Your task to perform on an android device: empty trash in the gmail app Image 0: 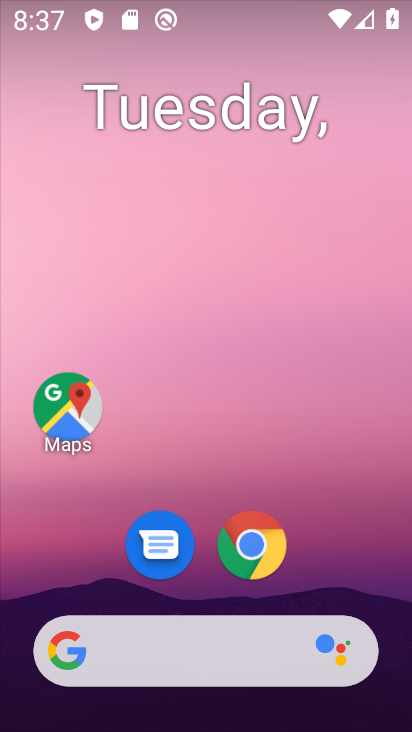
Step 0: drag from (334, 551) to (240, 34)
Your task to perform on an android device: empty trash in the gmail app Image 1: 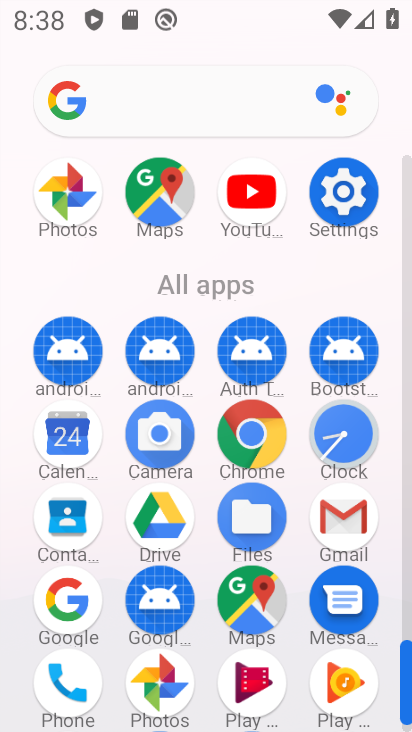
Step 1: click (349, 509)
Your task to perform on an android device: empty trash in the gmail app Image 2: 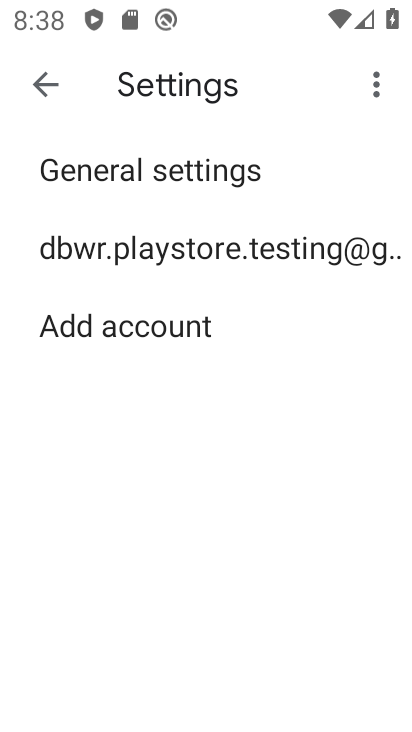
Step 2: click (188, 265)
Your task to perform on an android device: empty trash in the gmail app Image 3: 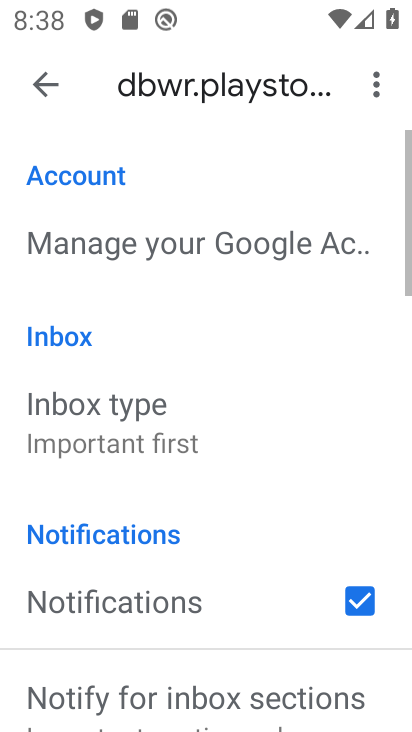
Step 3: click (66, 102)
Your task to perform on an android device: empty trash in the gmail app Image 4: 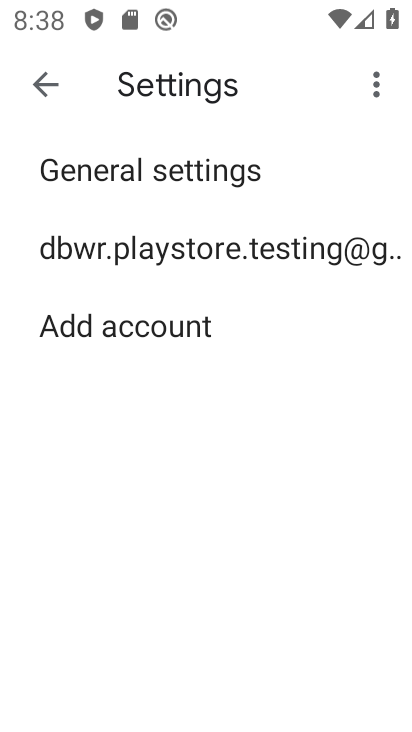
Step 4: click (66, 102)
Your task to perform on an android device: empty trash in the gmail app Image 5: 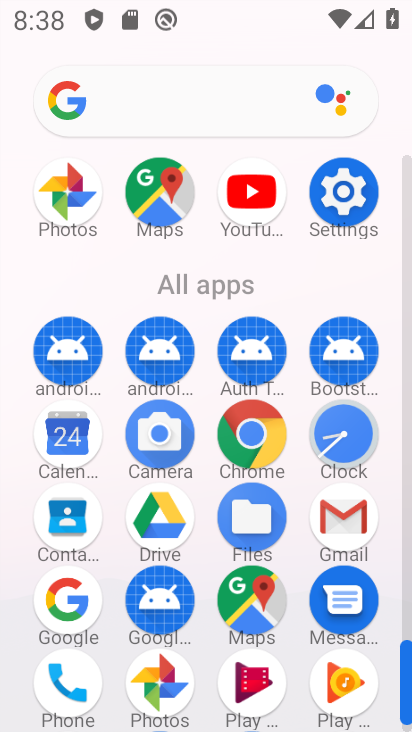
Step 5: click (343, 505)
Your task to perform on an android device: empty trash in the gmail app Image 6: 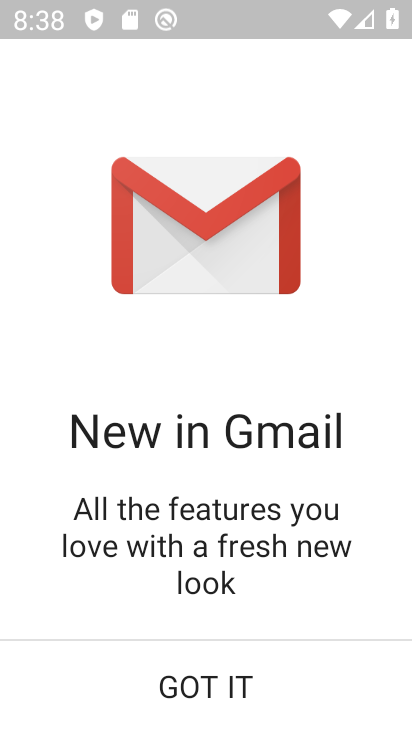
Step 6: click (200, 680)
Your task to perform on an android device: empty trash in the gmail app Image 7: 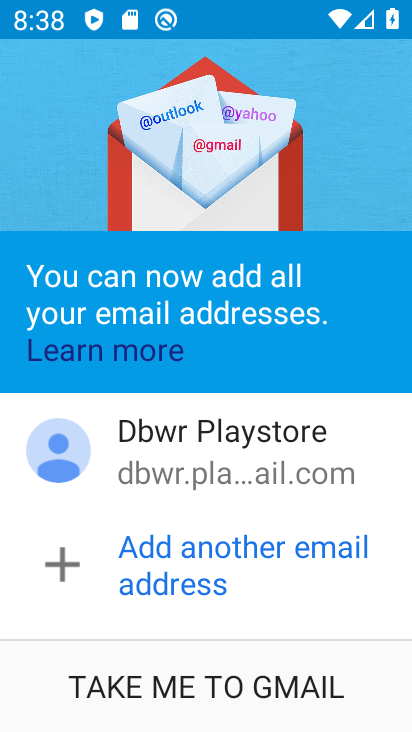
Step 7: click (200, 677)
Your task to perform on an android device: empty trash in the gmail app Image 8: 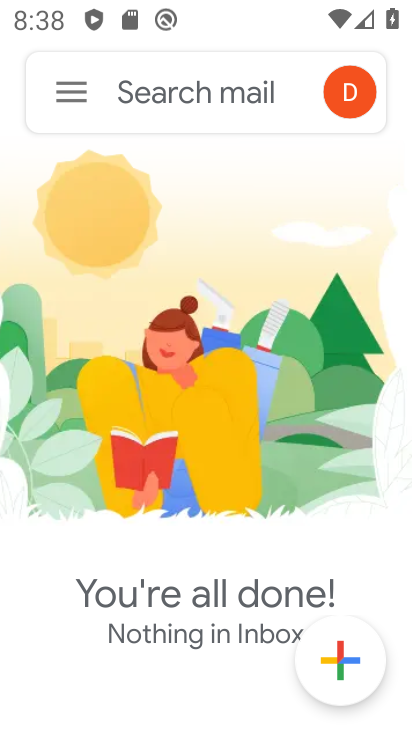
Step 8: click (71, 103)
Your task to perform on an android device: empty trash in the gmail app Image 9: 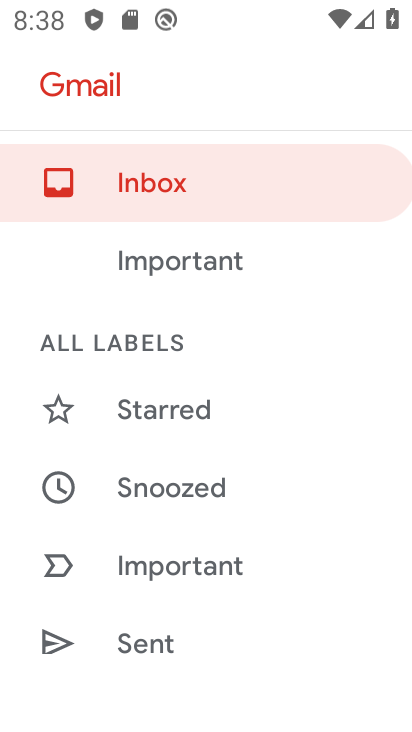
Step 9: drag from (192, 528) to (189, 172)
Your task to perform on an android device: empty trash in the gmail app Image 10: 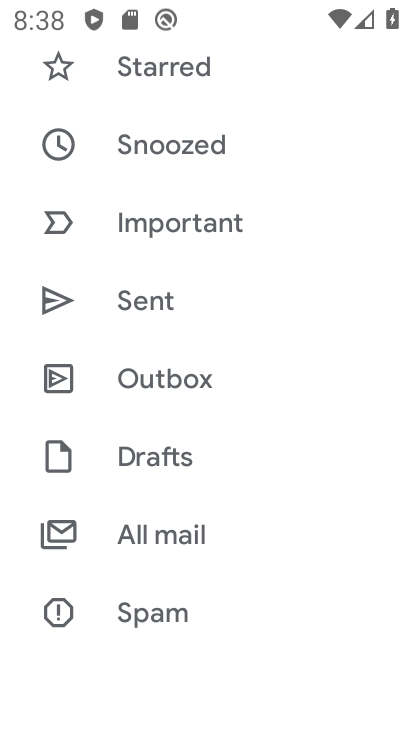
Step 10: drag from (164, 535) to (127, 212)
Your task to perform on an android device: empty trash in the gmail app Image 11: 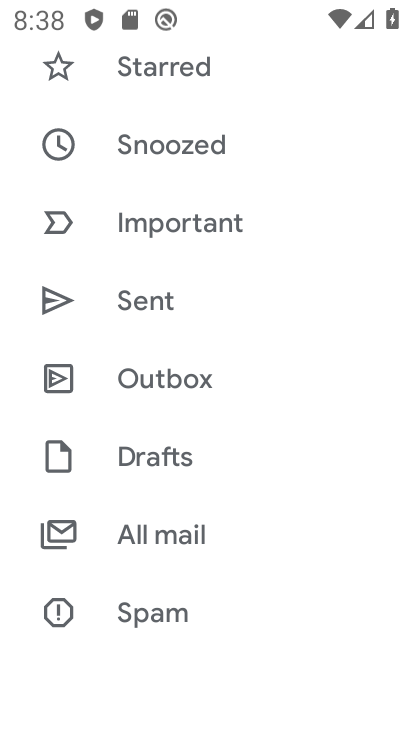
Step 11: drag from (196, 503) to (194, 201)
Your task to perform on an android device: empty trash in the gmail app Image 12: 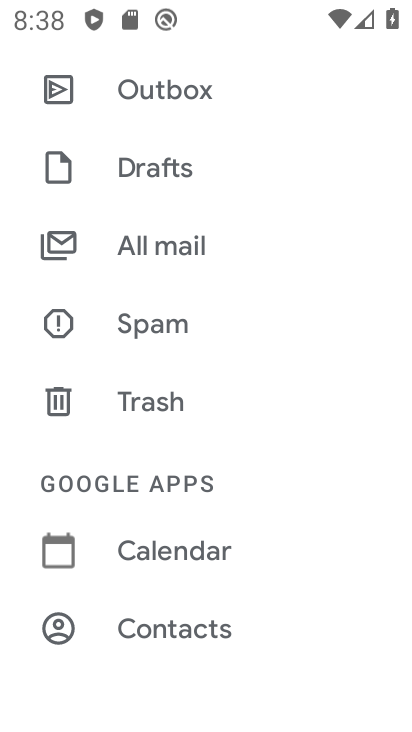
Step 12: click (160, 408)
Your task to perform on an android device: empty trash in the gmail app Image 13: 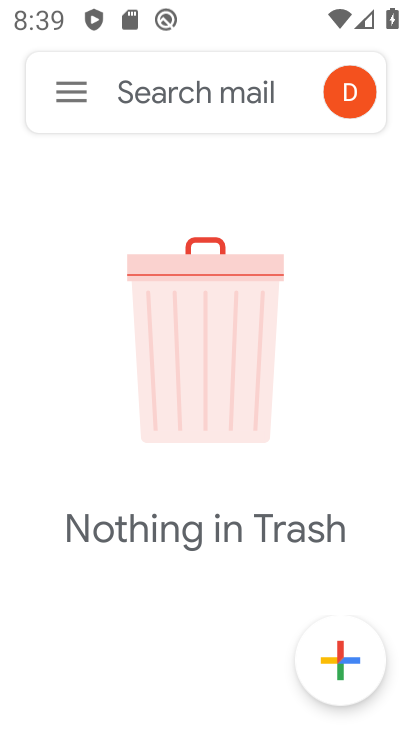
Step 13: task complete